Your task to perform on an android device: check out phone information Image 0: 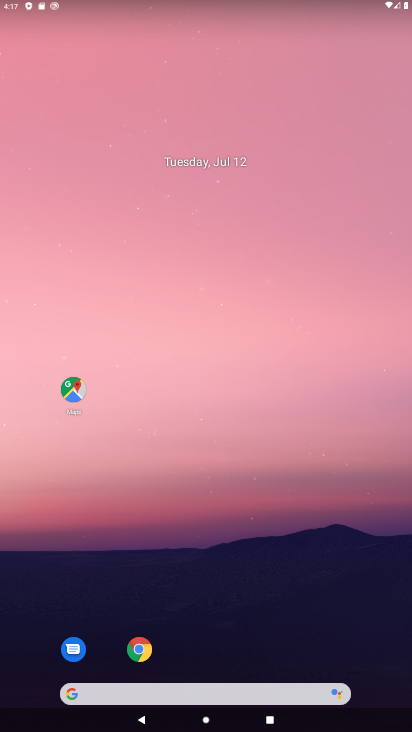
Step 0: drag from (275, 695) to (347, 71)
Your task to perform on an android device: check out phone information Image 1: 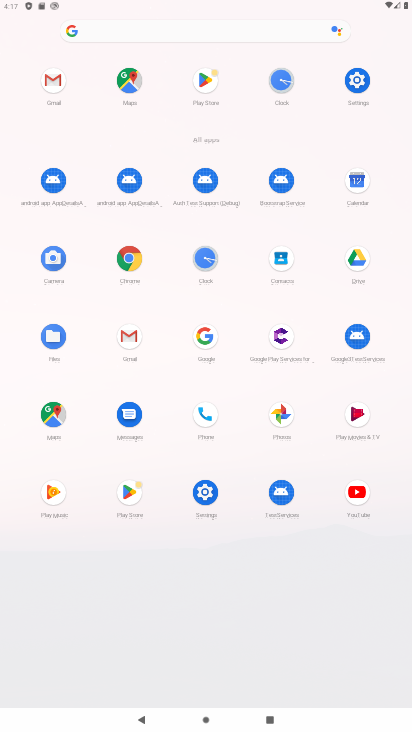
Step 1: click (205, 495)
Your task to perform on an android device: check out phone information Image 2: 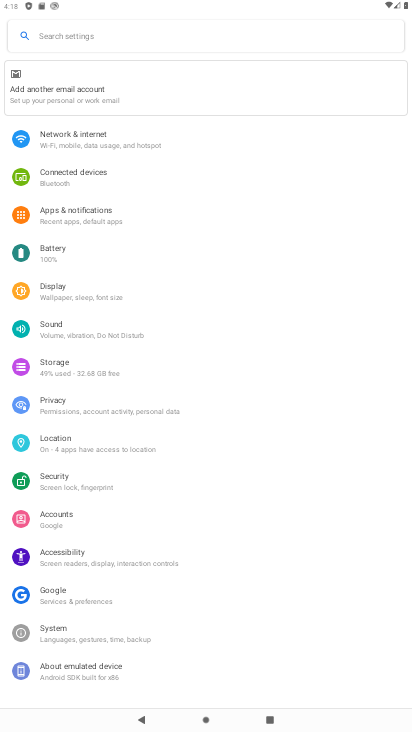
Step 2: click (69, 670)
Your task to perform on an android device: check out phone information Image 3: 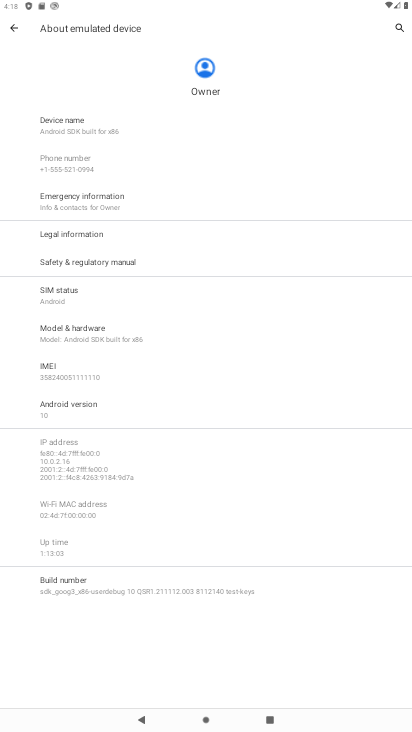
Step 3: task complete